Your task to perform on an android device: turn on improve location accuracy Image 0: 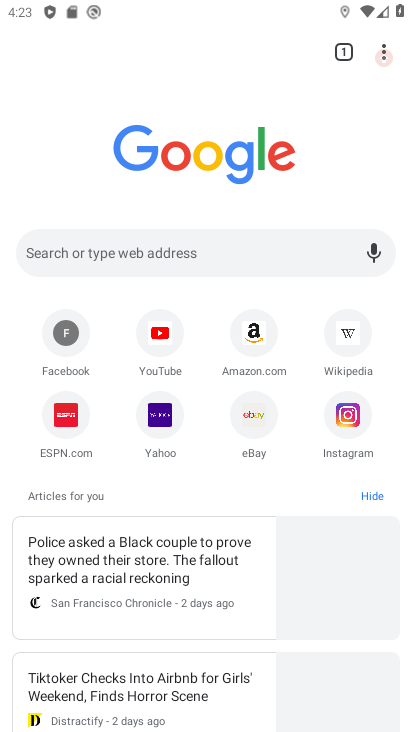
Step 0: press home button
Your task to perform on an android device: turn on improve location accuracy Image 1: 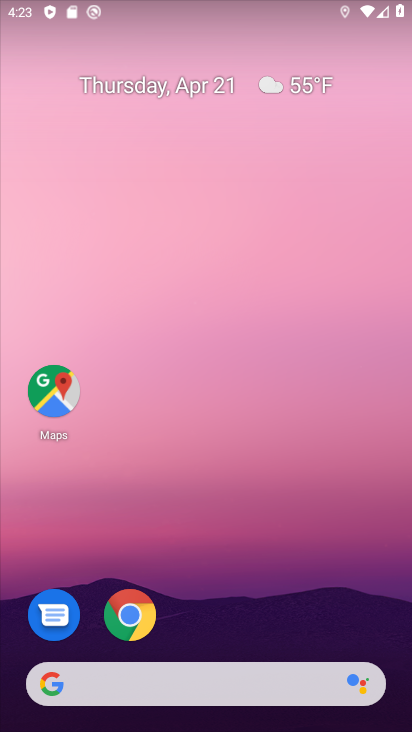
Step 1: drag from (208, 635) to (217, 86)
Your task to perform on an android device: turn on improve location accuracy Image 2: 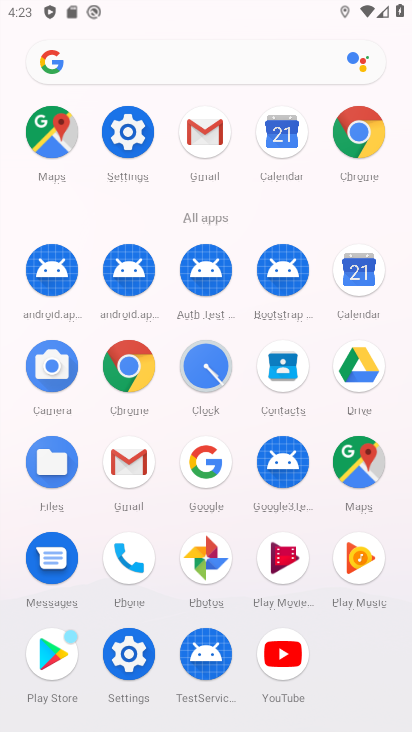
Step 2: click (126, 135)
Your task to perform on an android device: turn on improve location accuracy Image 3: 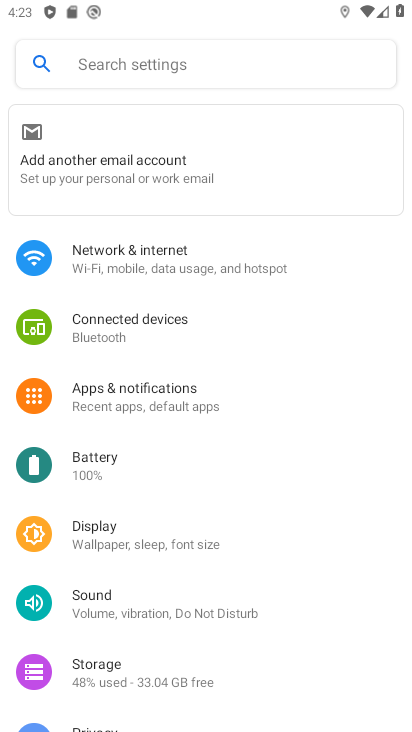
Step 3: drag from (183, 660) to (188, 331)
Your task to perform on an android device: turn on improve location accuracy Image 4: 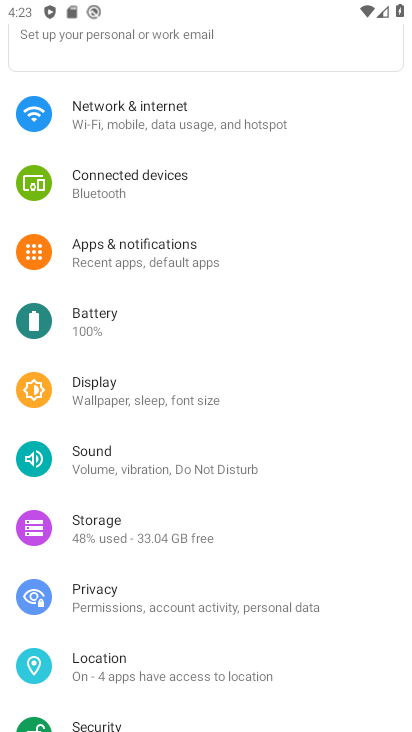
Step 4: click (142, 664)
Your task to perform on an android device: turn on improve location accuracy Image 5: 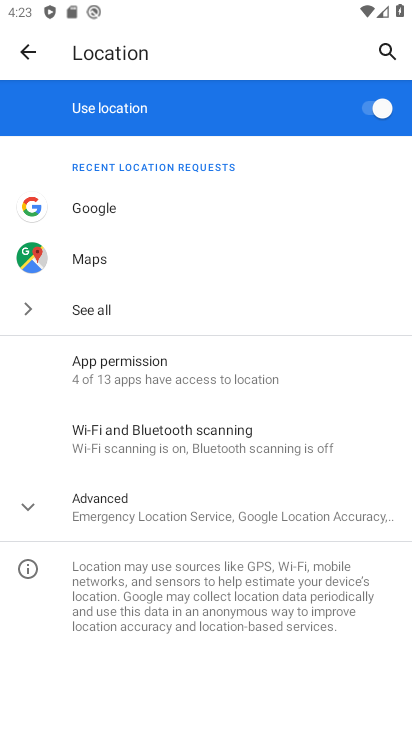
Step 5: click (145, 506)
Your task to perform on an android device: turn on improve location accuracy Image 6: 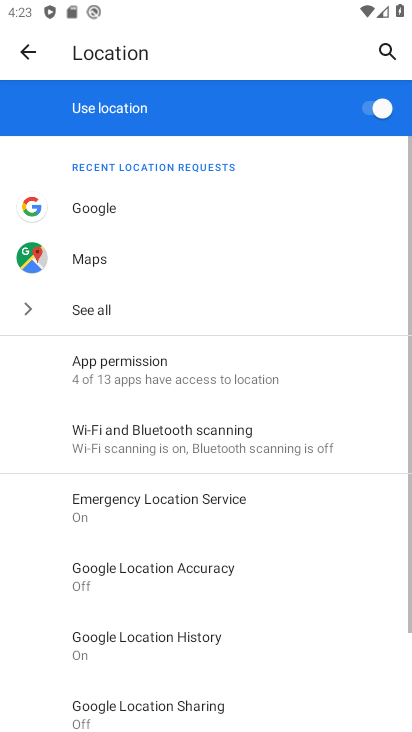
Step 6: drag from (227, 618) to (222, 417)
Your task to perform on an android device: turn on improve location accuracy Image 7: 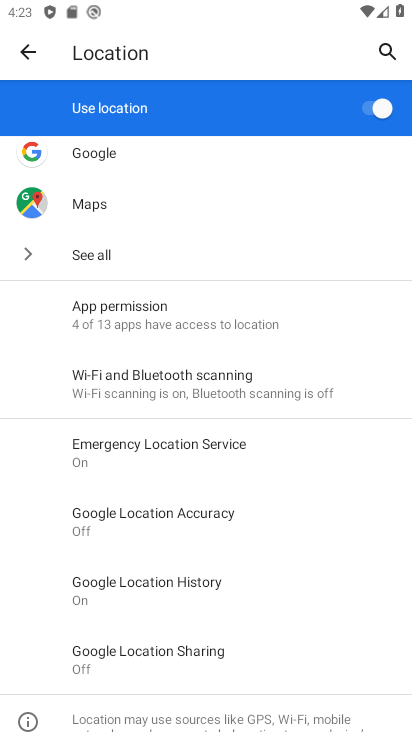
Step 7: click (176, 514)
Your task to perform on an android device: turn on improve location accuracy Image 8: 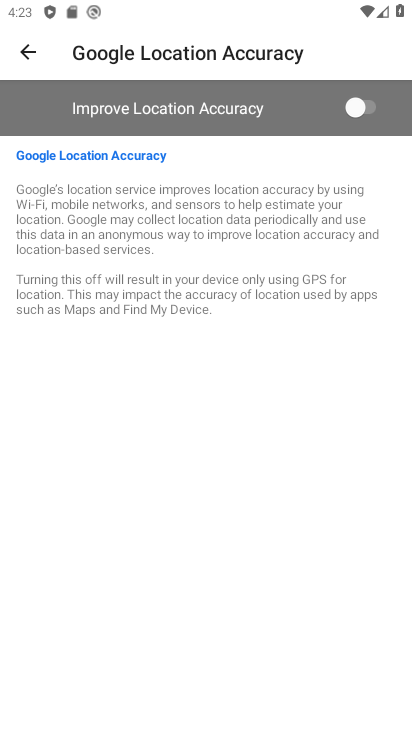
Step 8: click (362, 107)
Your task to perform on an android device: turn on improve location accuracy Image 9: 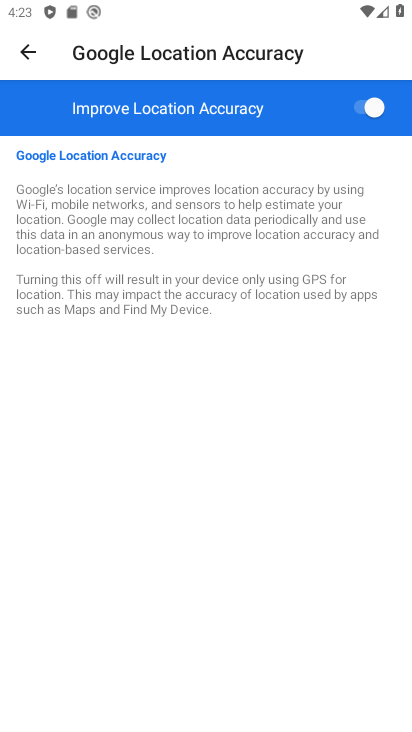
Step 9: task complete